Your task to perform on an android device: Add energizer triple a to the cart on target Image 0: 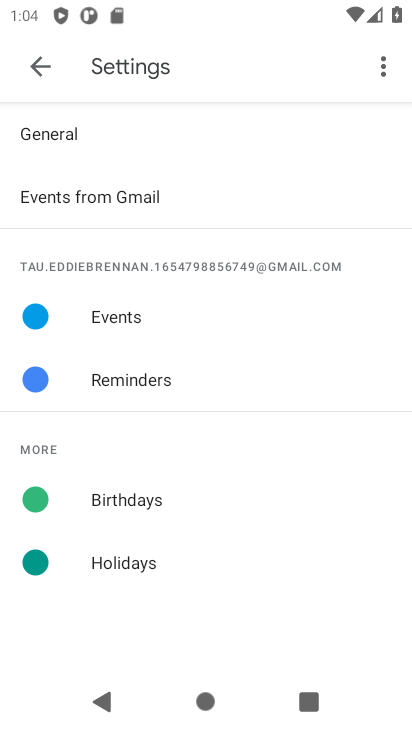
Step 0: press home button
Your task to perform on an android device: Add energizer triple a to the cart on target Image 1: 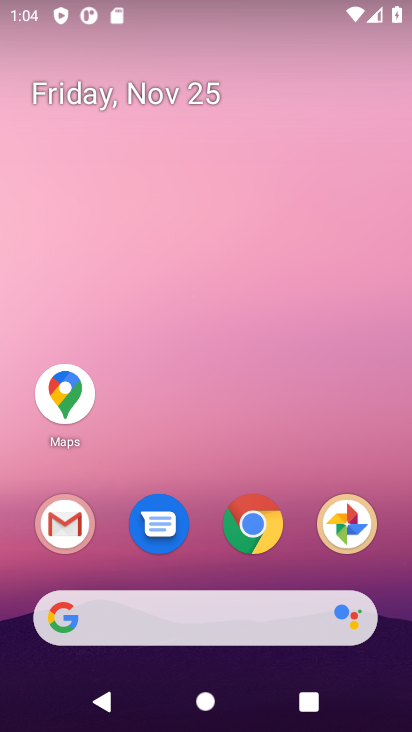
Step 1: click (251, 533)
Your task to perform on an android device: Add energizer triple a to the cart on target Image 2: 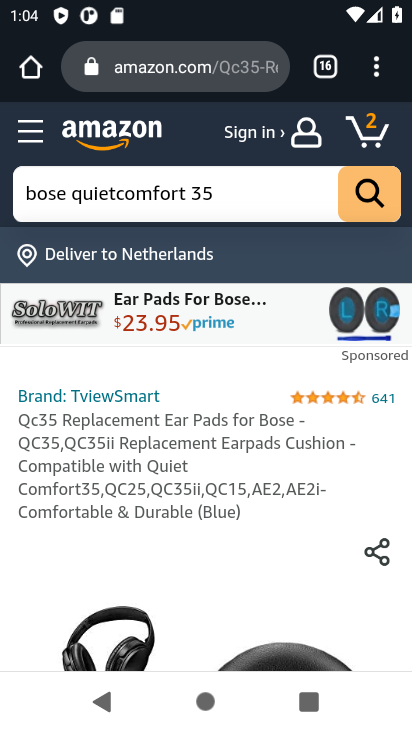
Step 2: click (171, 68)
Your task to perform on an android device: Add energizer triple a to the cart on target Image 3: 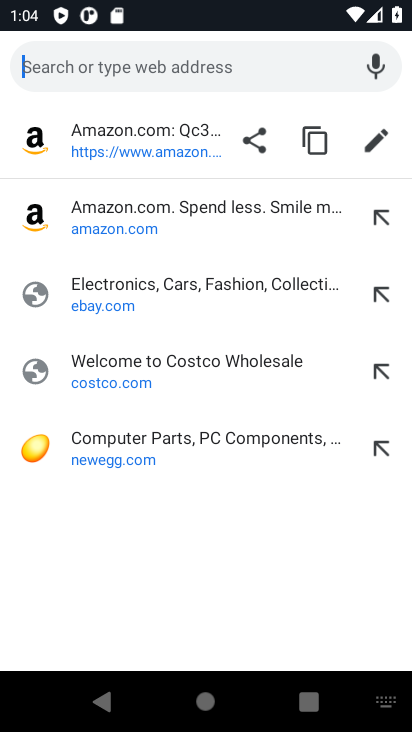
Step 3: type "target.com"
Your task to perform on an android device: Add energizer triple a to the cart on target Image 4: 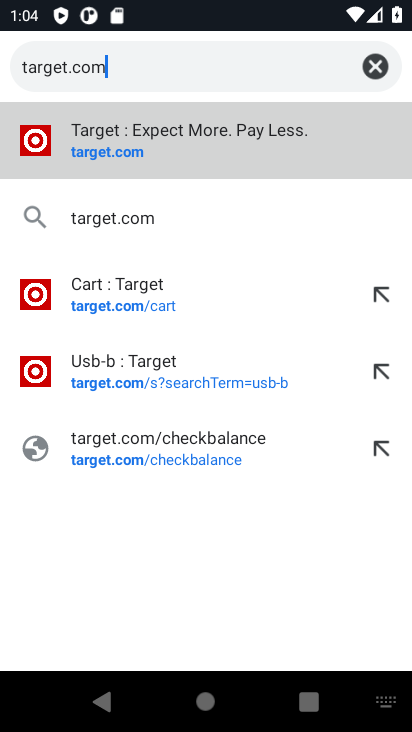
Step 4: click (74, 146)
Your task to perform on an android device: Add energizer triple a to the cart on target Image 5: 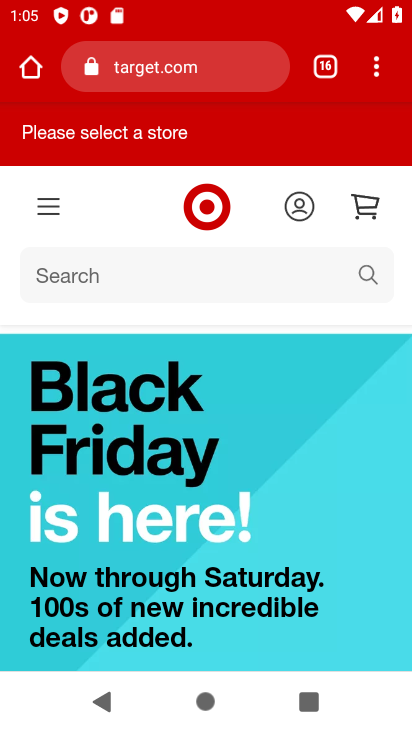
Step 5: click (364, 277)
Your task to perform on an android device: Add energizer triple a to the cart on target Image 6: 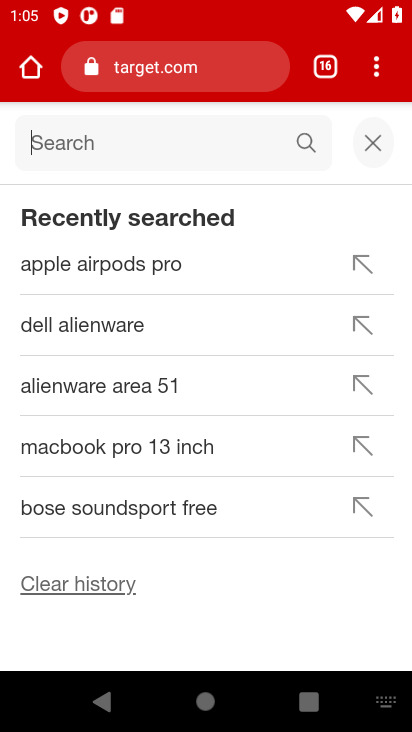
Step 6: type "energizer triple a"
Your task to perform on an android device: Add energizer triple a to the cart on target Image 7: 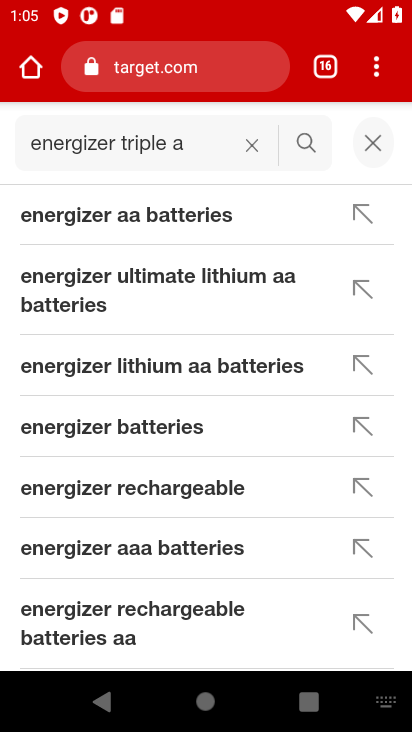
Step 7: click (301, 141)
Your task to perform on an android device: Add energizer triple a to the cart on target Image 8: 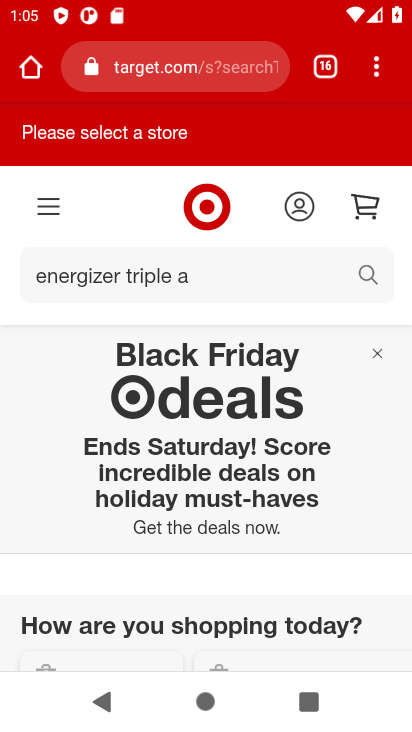
Step 8: drag from (207, 442) to (207, 219)
Your task to perform on an android device: Add energizer triple a to the cart on target Image 9: 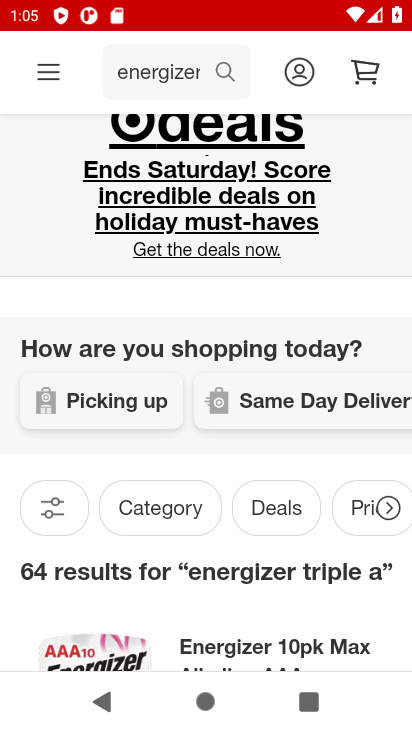
Step 9: drag from (164, 444) to (185, 253)
Your task to perform on an android device: Add energizer triple a to the cart on target Image 10: 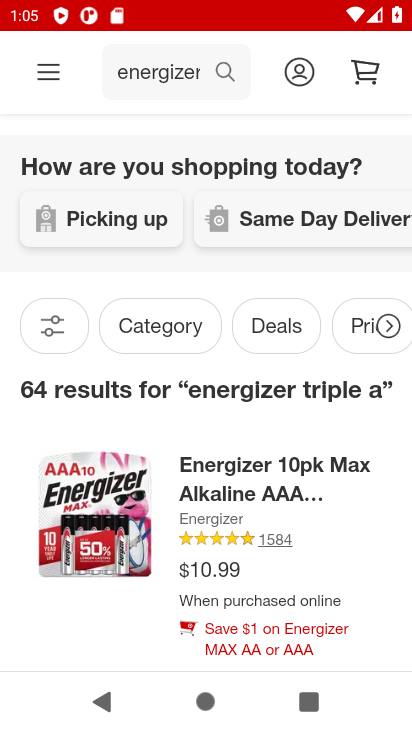
Step 10: drag from (135, 530) to (163, 321)
Your task to perform on an android device: Add energizer triple a to the cart on target Image 11: 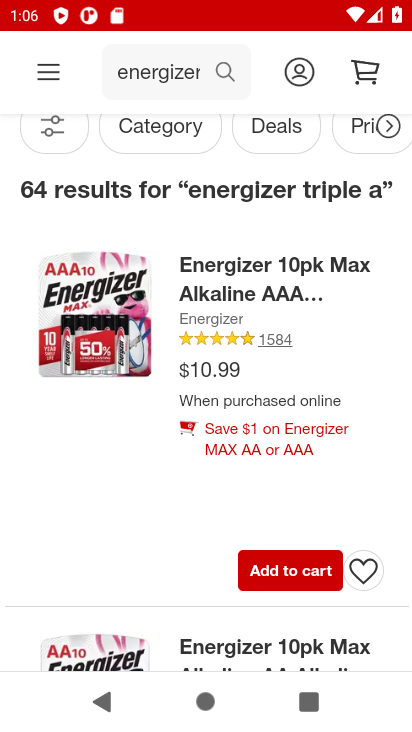
Step 11: click (276, 574)
Your task to perform on an android device: Add energizer triple a to the cart on target Image 12: 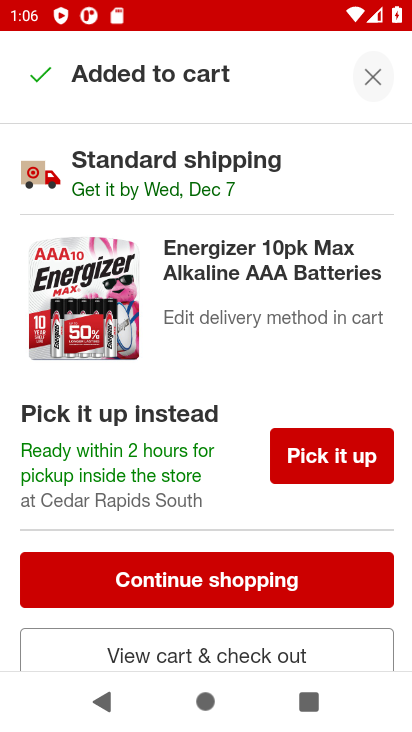
Step 12: task complete